Your task to perform on an android device: See recent photos Image 0: 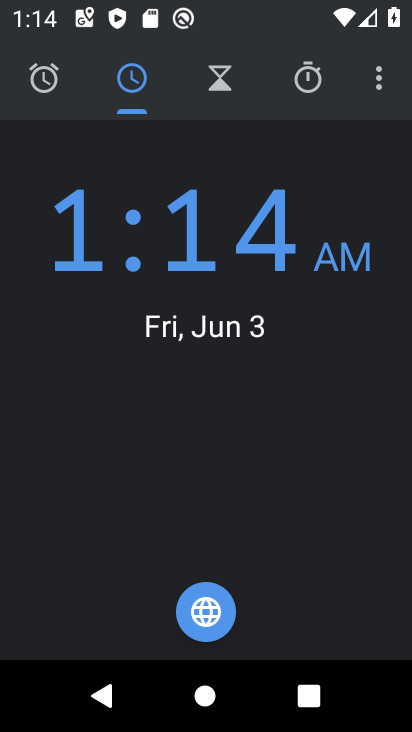
Step 0: press home button
Your task to perform on an android device: See recent photos Image 1: 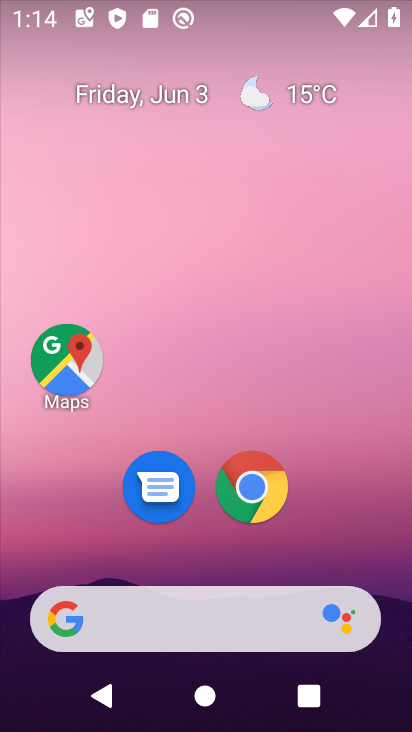
Step 1: drag from (203, 553) to (216, 76)
Your task to perform on an android device: See recent photos Image 2: 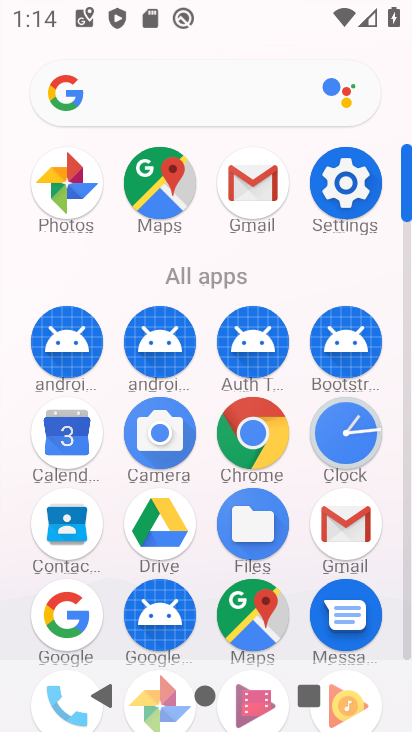
Step 2: click (206, 574)
Your task to perform on an android device: See recent photos Image 3: 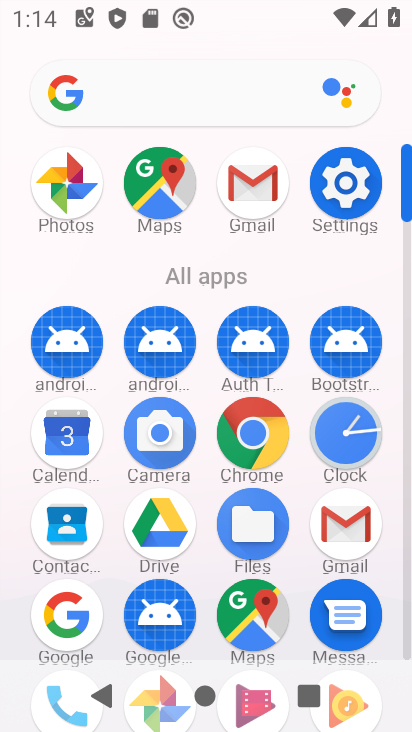
Step 3: drag from (206, 442) to (210, 214)
Your task to perform on an android device: See recent photos Image 4: 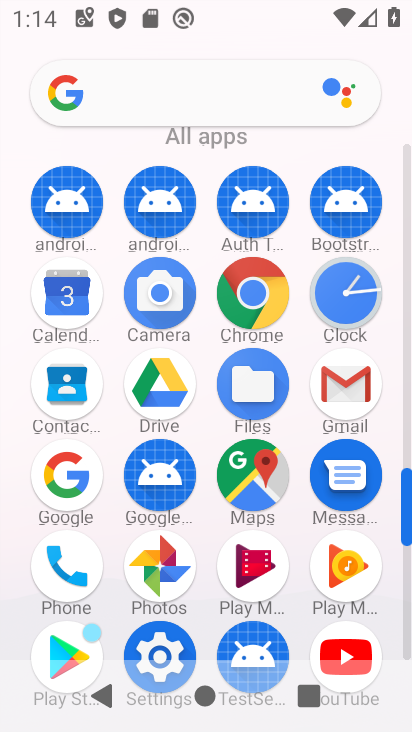
Step 4: click (160, 559)
Your task to perform on an android device: See recent photos Image 5: 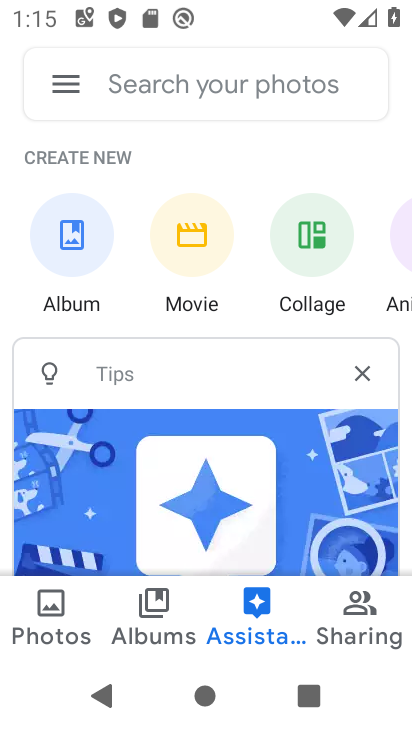
Step 5: click (46, 619)
Your task to perform on an android device: See recent photos Image 6: 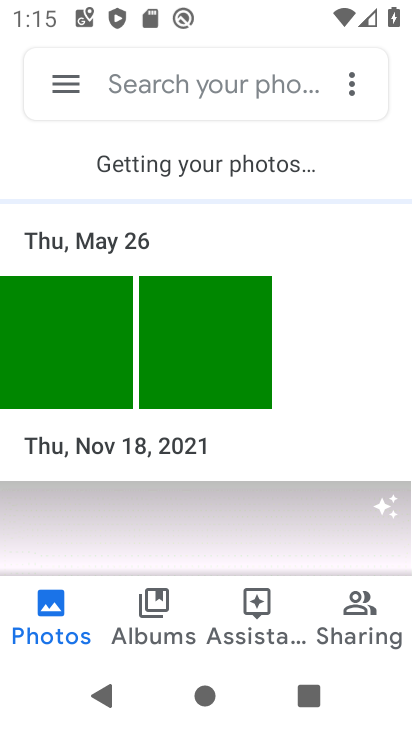
Step 6: task complete